Your task to perform on an android device: Turn off the flashlight Image 0: 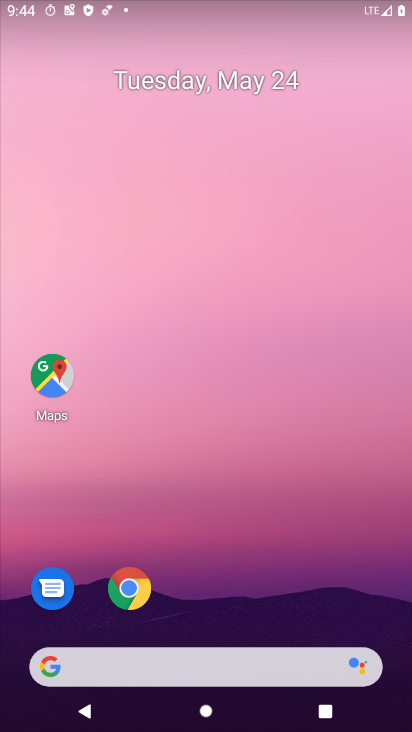
Step 0: drag from (189, 555) to (241, 19)
Your task to perform on an android device: Turn off the flashlight Image 1: 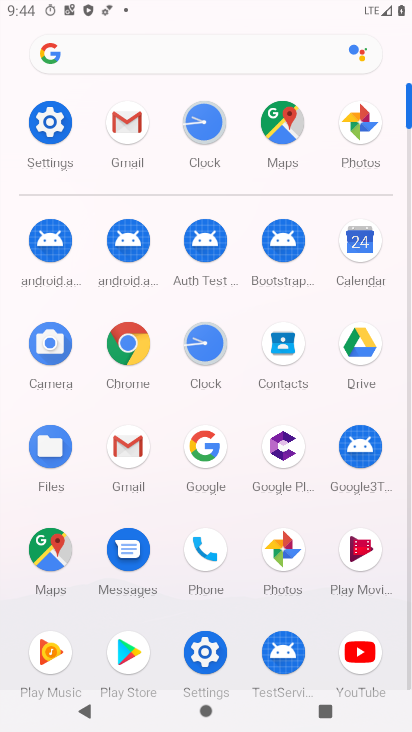
Step 1: click (51, 113)
Your task to perform on an android device: Turn off the flashlight Image 2: 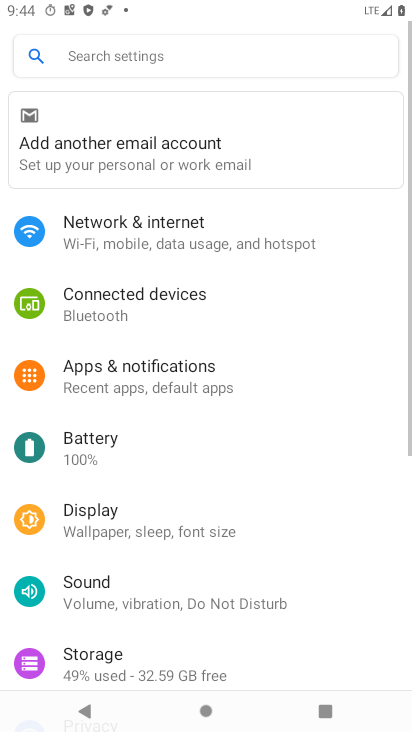
Step 2: click (136, 55)
Your task to perform on an android device: Turn off the flashlight Image 3: 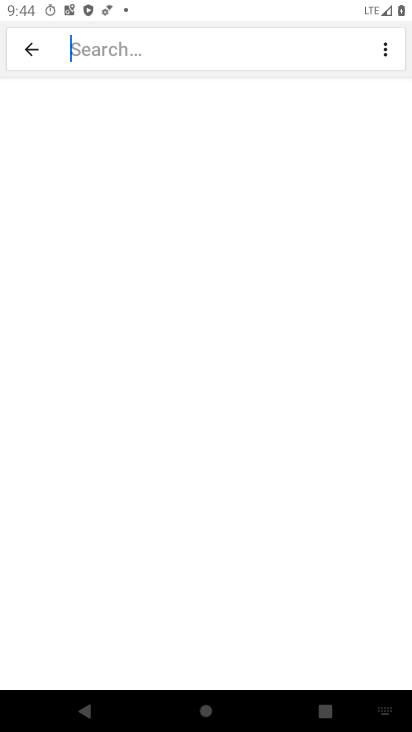
Step 3: type "flashlight"
Your task to perform on an android device: Turn off the flashlight Image 4: 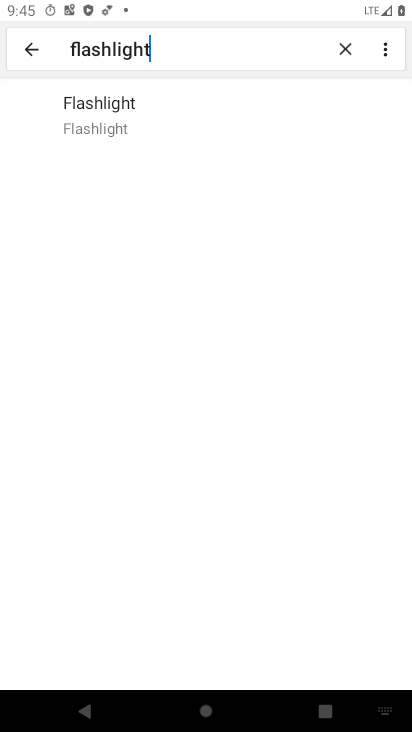
Step 4: click (128, 97)
Your task to perform on an android device: Turn off the flashlight Image 5: 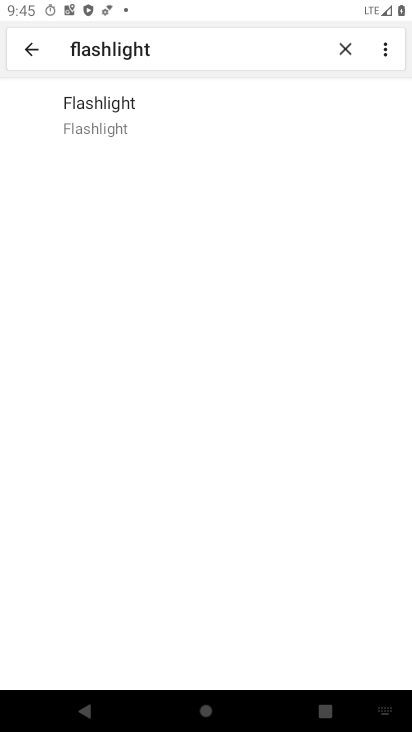
Step 5: task complete